Your task to perform on an android device: toggle notification dots Image 0: 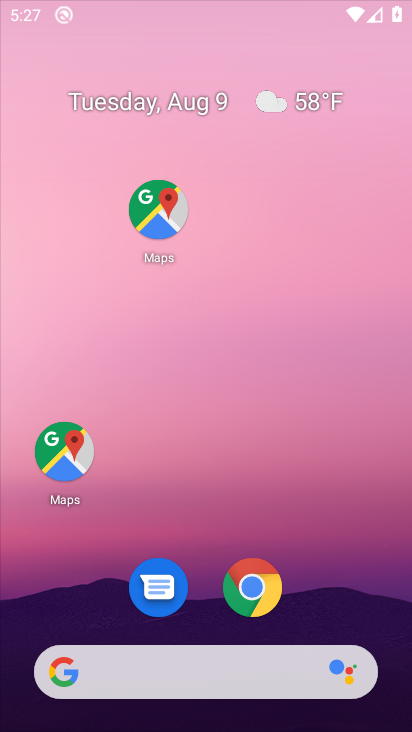
Step 0: click (397, 319)
Your task to perform on an android device: toggle notification dots Image 1: 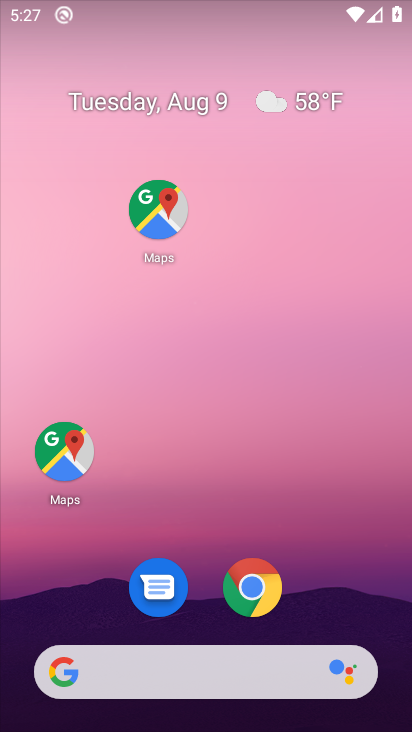
Step 1: drag from (302, 647) to (204, 118)
Your task to perform on an android device: toggle notification dots Image 2: 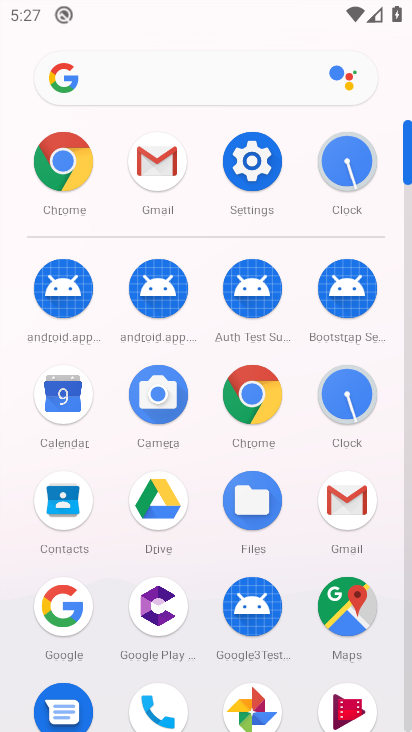
Step 2: click (258, 152)
Your task to perform on an android device: toggle notification dots Image 3: 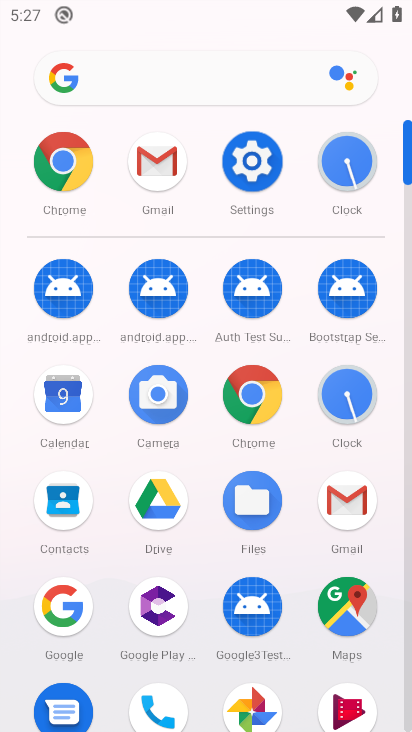
Step 3: click (260, 152)
Your task to perform on an android device: toggle notification dots Image 4: 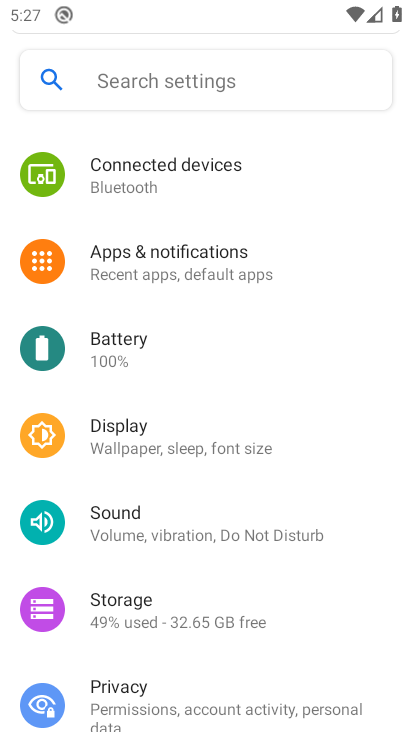
Step 4: click (147, 263)
Your task to perform on an android device: toggle notification dots Image 5: 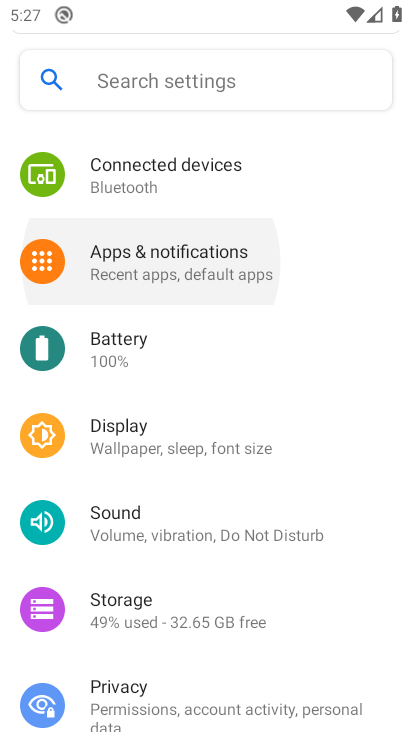
Step 5: click (147, 263)
Your task to perform on an android device: toggle notification dots Image 6: 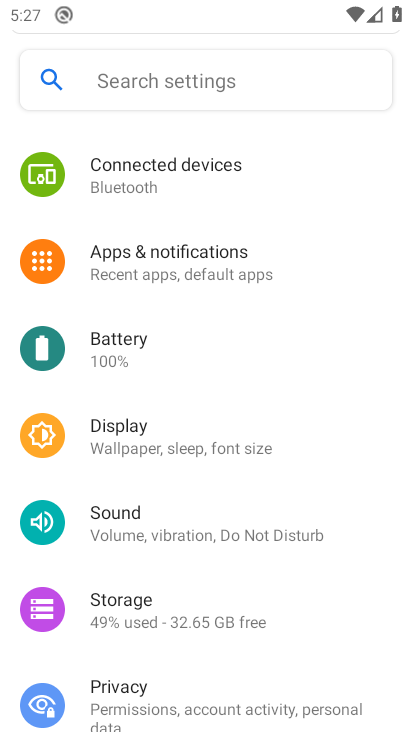
Step 6: click (162, 258)
Your task to perform on an android device: toggle notification dots Image 7: 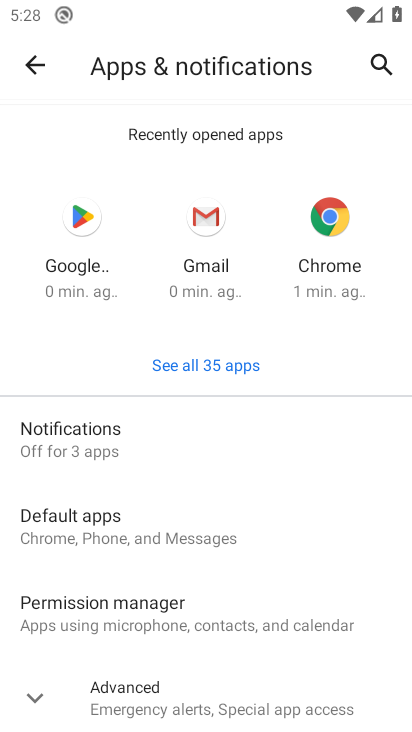
Step 7: drag from (124, 648) to (48, 350)
Your task to perform on an android device: toggle notification dots Image 8: 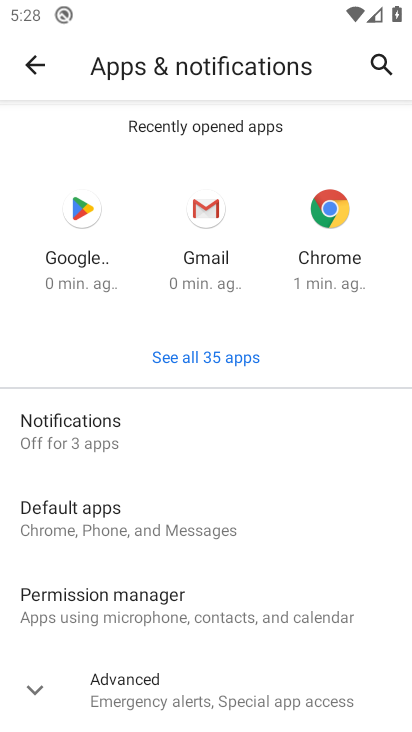
Step 8: click (65, 415)
Your task to perform on an android device: toggle notification dots Image 9: 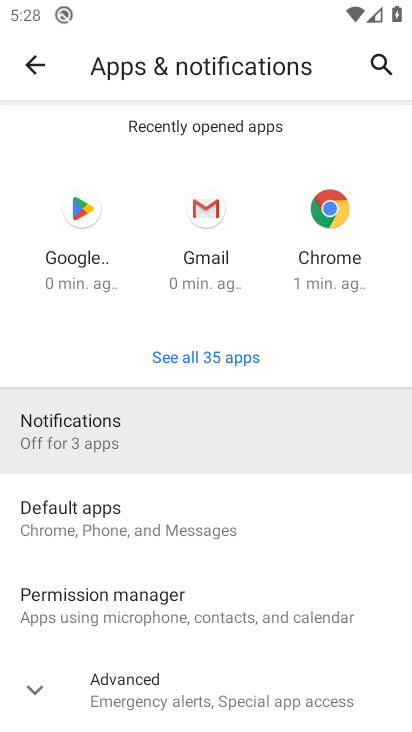
Step 9: click (66, 420)
Your task to perform on an android device: toggle notification dots Image 10: 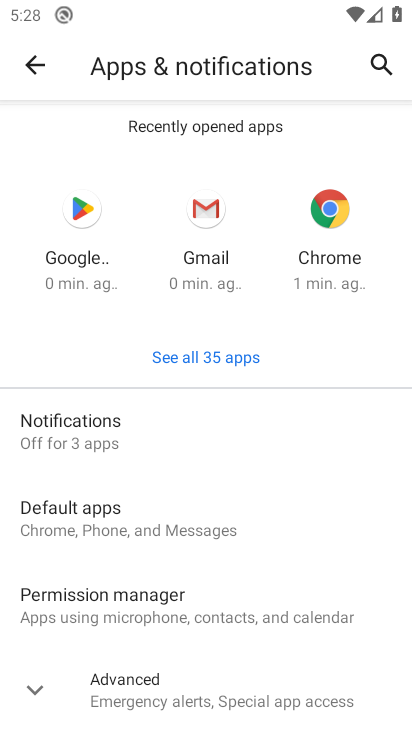
Step 10: click (66, 421)
Your task to perform on an android device: toggle notification dots Image 11: 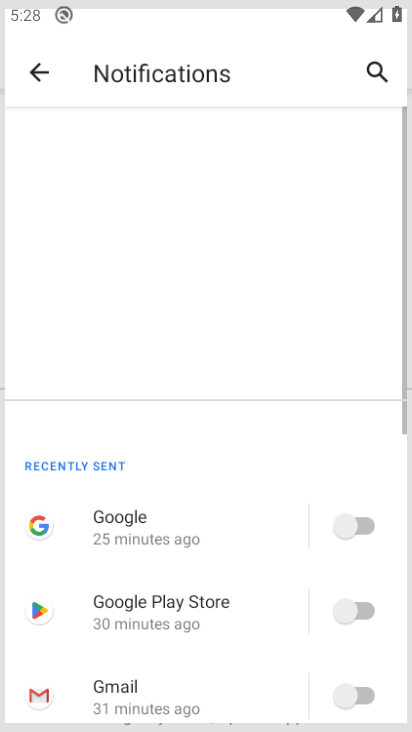
Step 11: click (66, 422)
Your task to perform on an android device: toggle notification dots Image 12: 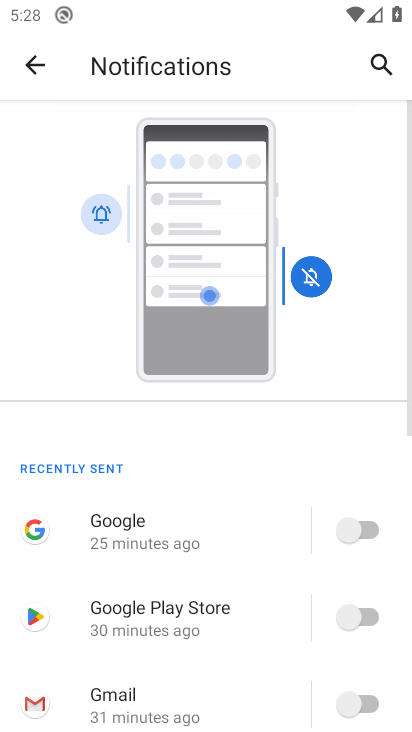
Step 12: drag from (138, 423) to (147, 298)
Your task to perform on an android device: toggle notification dots Image 13: 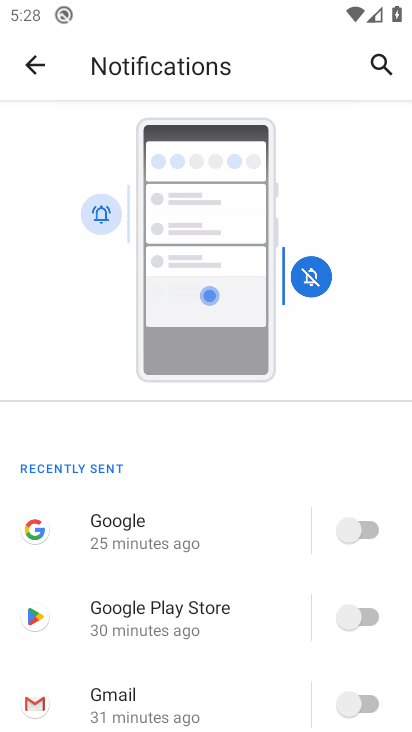
Step 13: drag from (179, 584) to (261, 231)
Your task to perform on an android device: toggle notification dots Image 14: 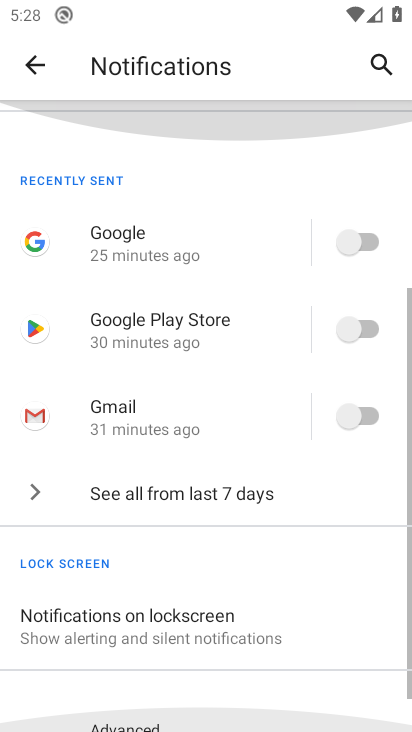
Step 14: drag from (332, 577) to (294, 245)
Your task to perform on an android device: toggle notification dots Image 15: 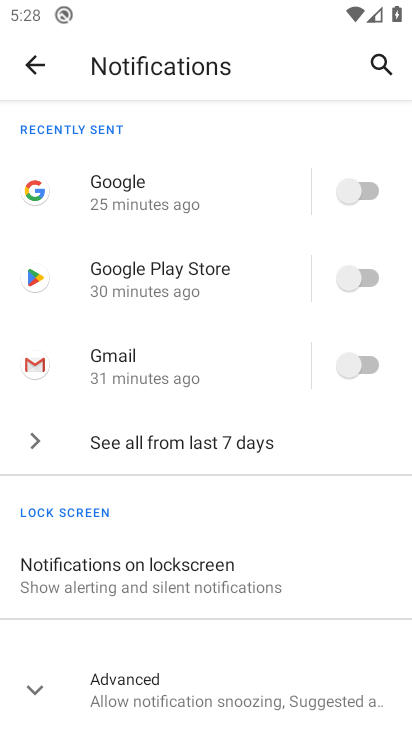
Step 15: click (116, 689)
Your task to perform on an android device: toggle notification dots Image 16: 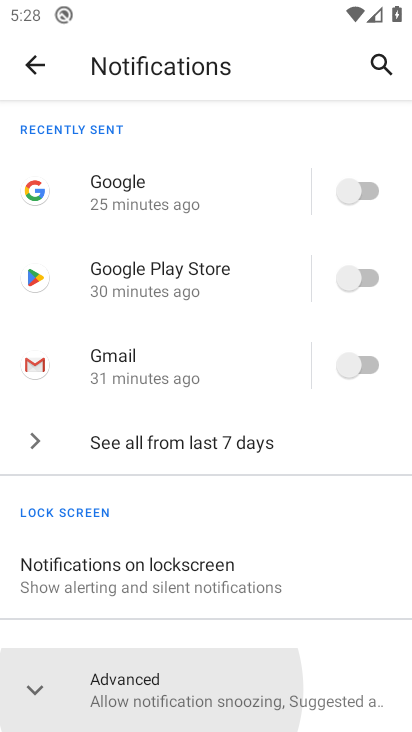
Step 16: click (116, 689)
Your task to perform on an android device: toggle notification dots Image 17: 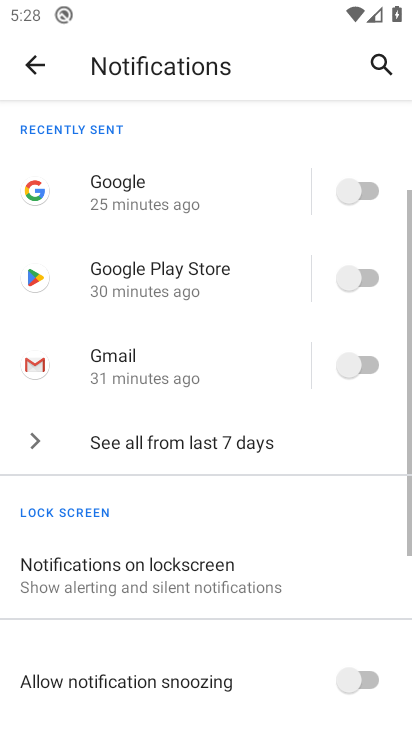
Step 17: drag from (223, 656) to (249, 369)
Your task to perform on an android device: toggle notification dots Image 18: 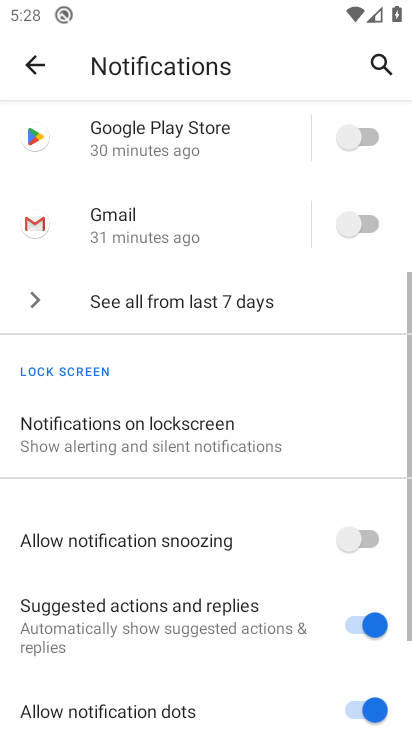
Step 18: drag from (283, 453) to (280, 247)
Your task to perform on an android device: toggle notification dots Image 19: 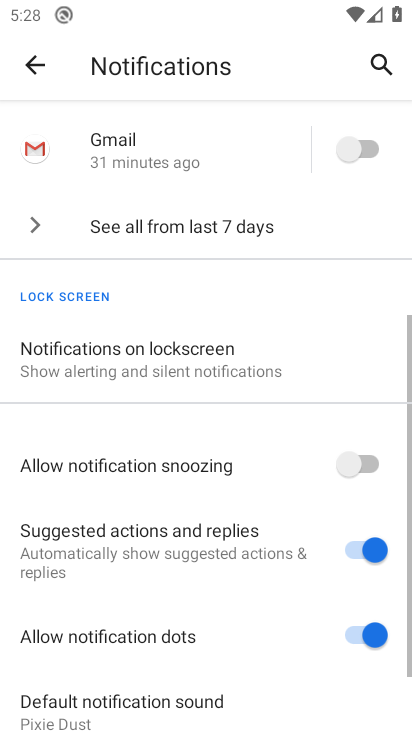
Step 19: drag from (287, 442) to (294, 304)
Your task to perform on an android device: toggle notification dots Image 20: 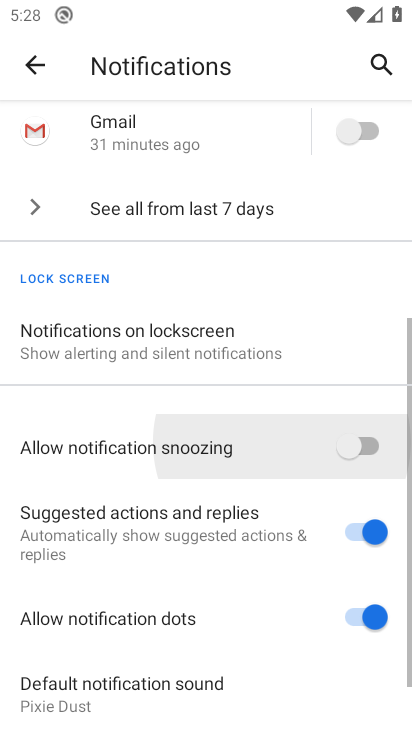
Step 20: drag from (289, 398) to (263, 195)
Your task to perform on an android device: toggle notification dots Image 21: 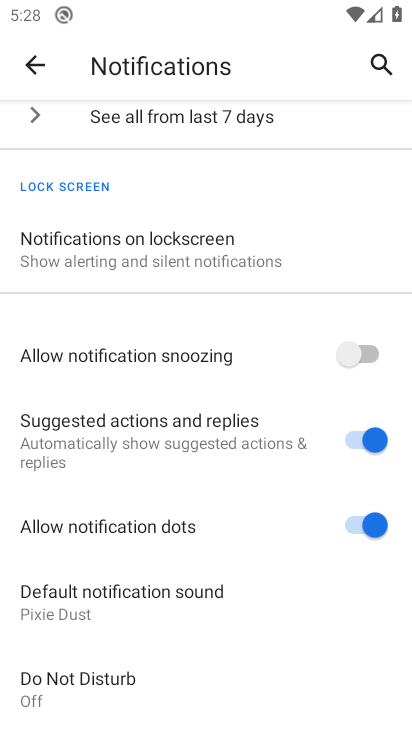
Step 21: click (368, 531)
Your task to perform on an android device: toggle notification dots Image 22: 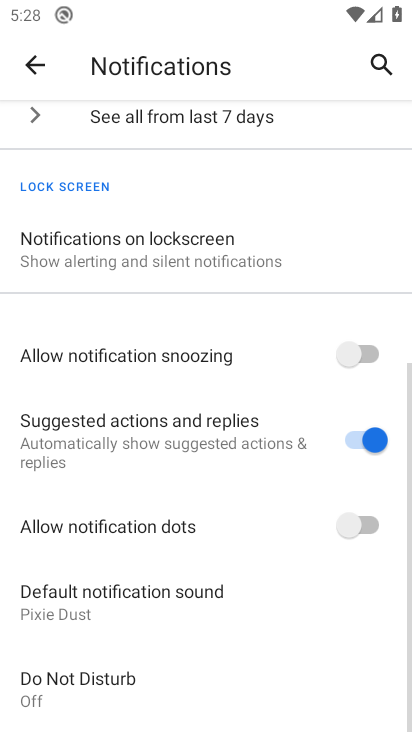
Step 22: task complete